Your task to perform on an android device: What's on my calendar tomorrow? Image 0: 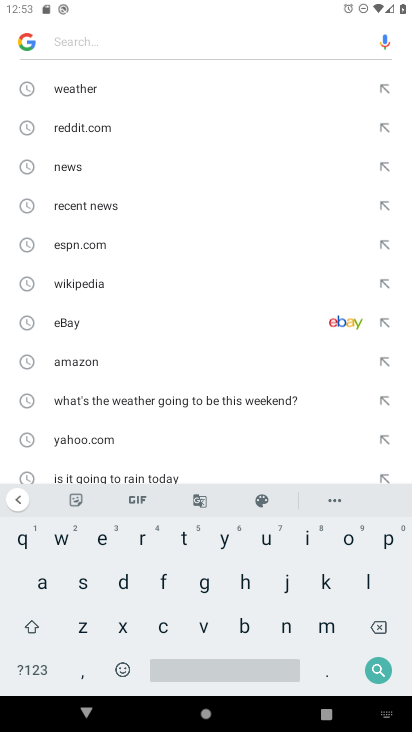
Step 0: press home button
Your task to perform on an android device: What's on my calendar tomorrow? Image 1: 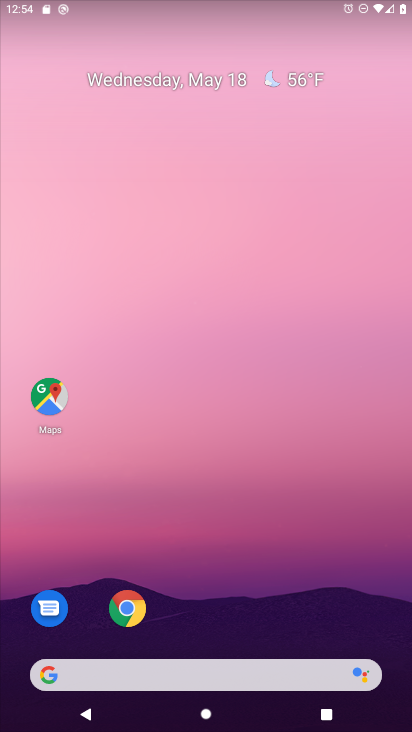
Step 1: drag from (283, 684) to (187, 273)
Your task to perform on an android device: What's on my calendar tomorrow? Image 2: 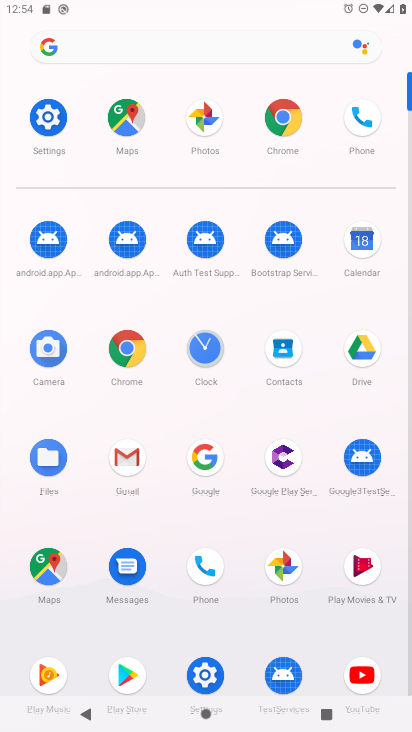
Step 2: click (364, 237)
Your task to perform on an android device: What's on my calendar tomorrow? Image 3: 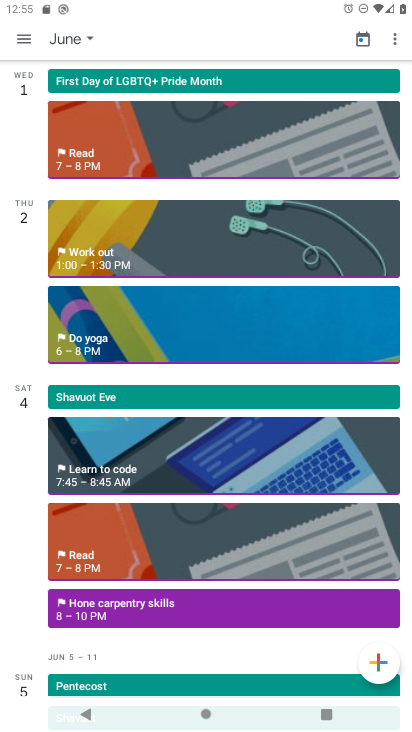
Step 3: task complete